Your task to perform on an android device: choose inbox layout in the gmail app Image 0: 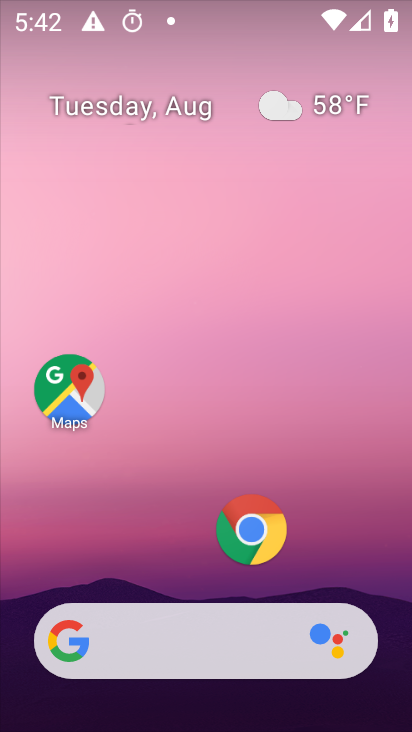
Step 0: drag from (188, 366) to (210, 168)
Your task to perform on an android device: choose inbox layout in the gmail app Image 1: 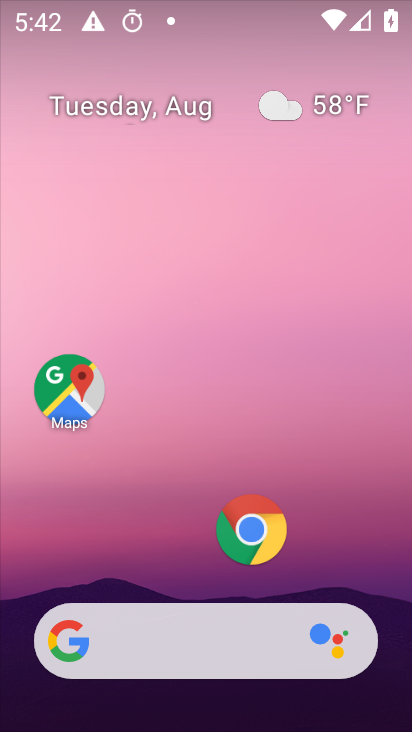
Step 1: drag from (188, 491) to (211, 189)
Your task to perform on an android device: choose inbox layout in the gmail app Image 2: 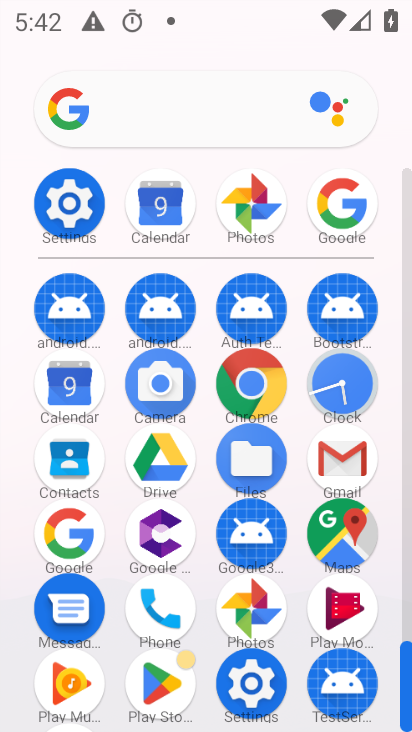
Step 2: click (346, 461)
Your task to perform on an android device: choose inbox layout in the gmail app Image 3: 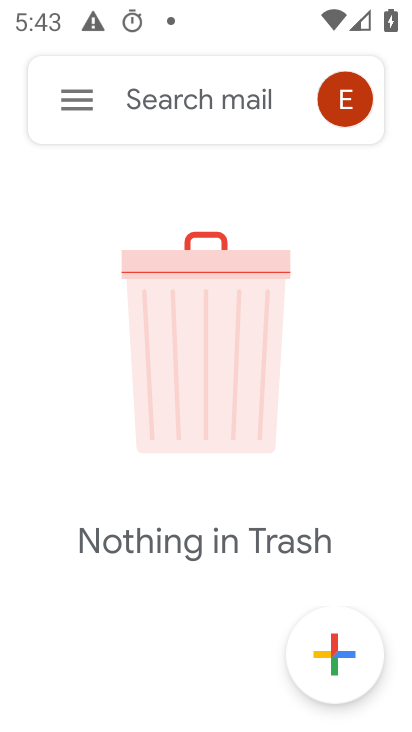
Step 3: click (82, 105)
Your task to perform on an android device: choose inbox layout in the gmail app Image 4: 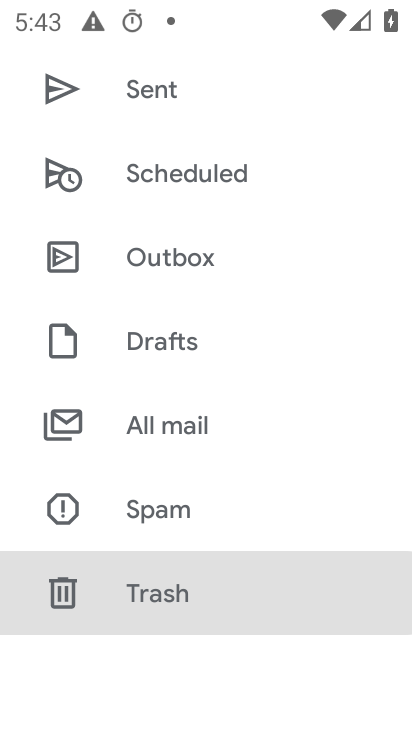
Step 4: drag from (238, 247) to (242, 505)
Your task to perform on an android device: choose inbox layout in the gmail app Image 5: 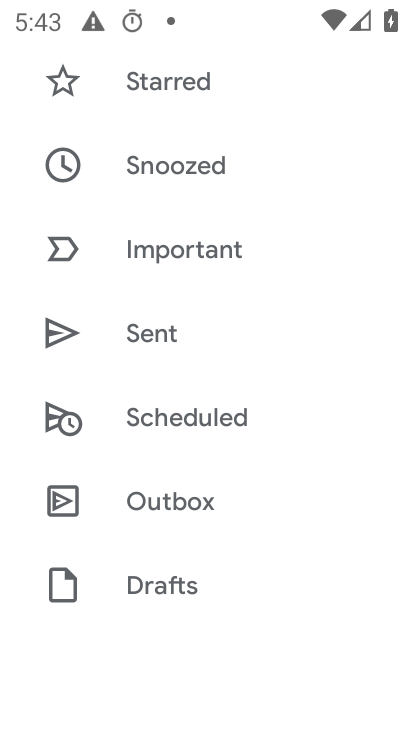
Step 5: drag from (228, 259) to (228, 499)
Your task to perform on an android device: choose inbox layout in the gmail app Image 6: 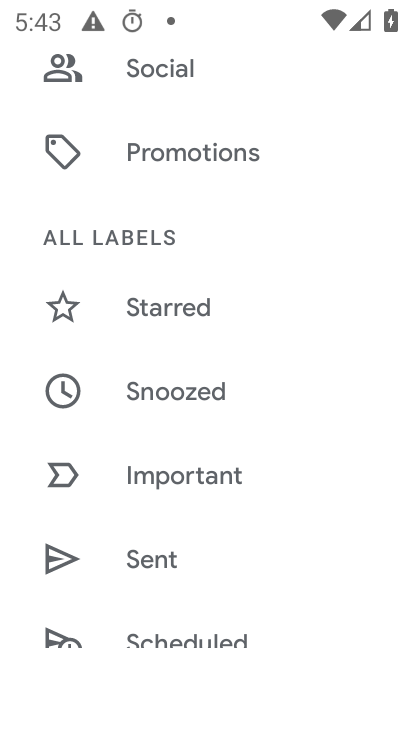
Step 6: drag from (234, 498) to (244, 161)
Your task to perform on an android device: choose inbox layout in the gmail app Image 7: 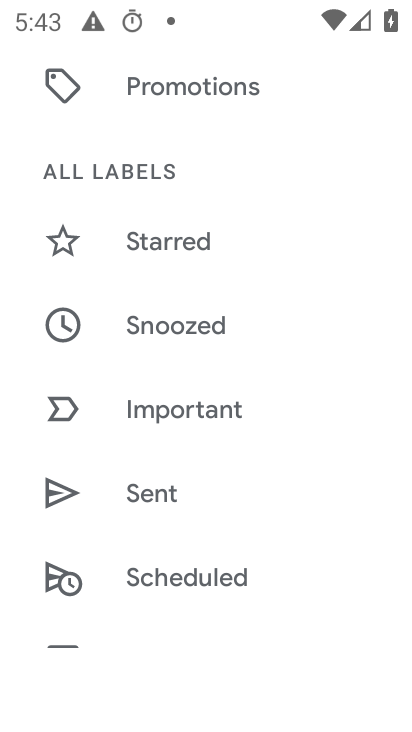
Step 7: drag from (210, 548) to (239, 236)
Your task to perform on an android device: choose inbox layout in the gmail app Image 8: 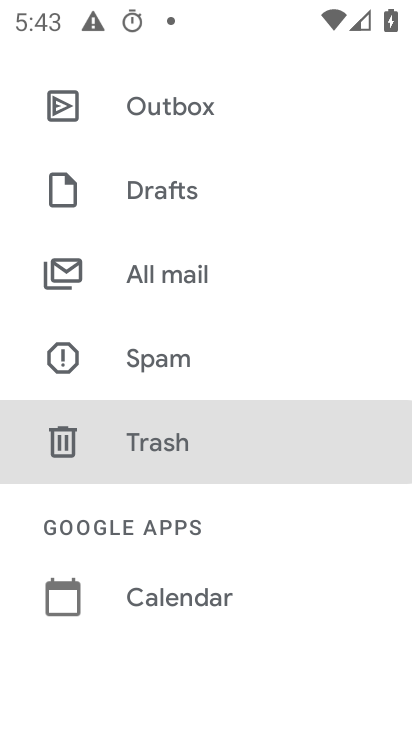
Step 8: drag from (231, 558) to (261, 269)
Your task to perform on an android device: choose inbox layout in the gmail app Image 9: 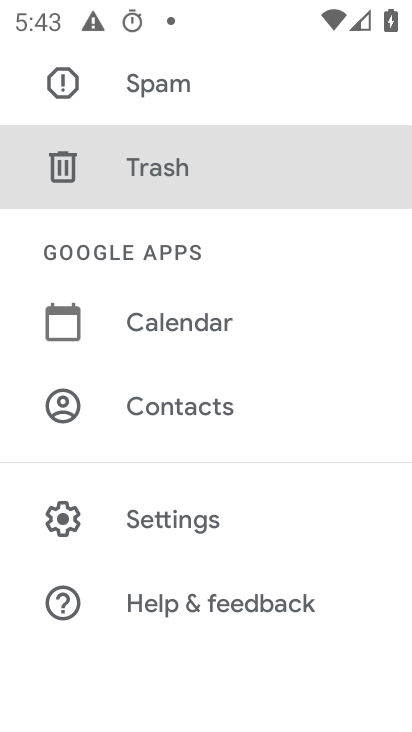
Step 9: click (184, 526)
Your task to perform on an android device: choose inbox layout in the gmail app Image 10: 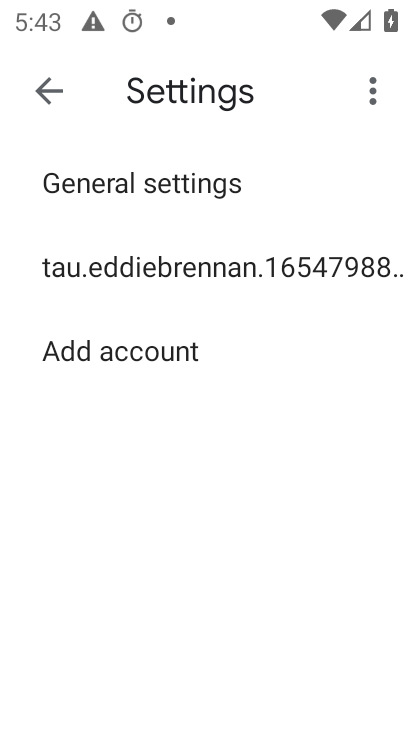
Step 10: click (232, 242)
Your task to perform on an android device: choose inbox layout in the gmail app Image 11: 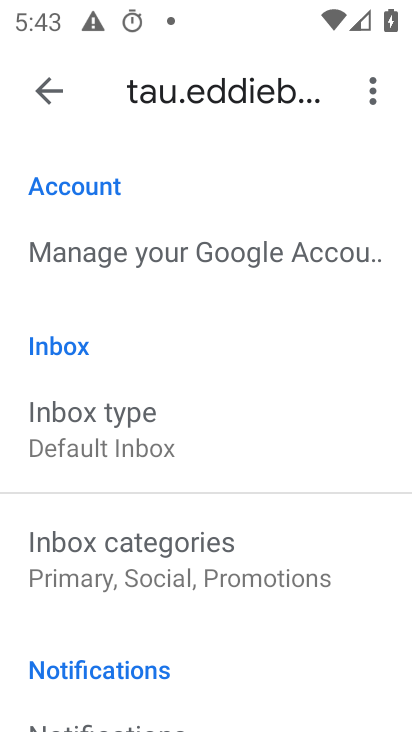
Step 11: click (152, 435)
Your task to perform on an android device: choose inbox layout in the gmail app Image 12: 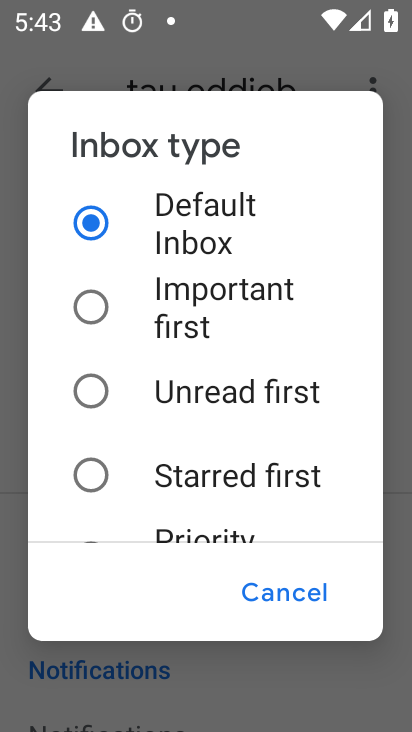
Step 12: drag from (189, 477) to (228, 247)
Your task to perform on an android device: choose inbox layout in the gmail app Image 13: 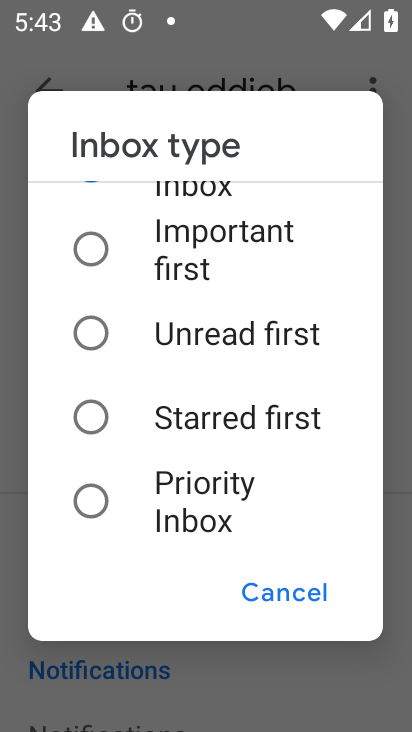
Step 13: click (179, 495)
Your task to perform on an android device: choose inbox layout in the gmail app Image 14: 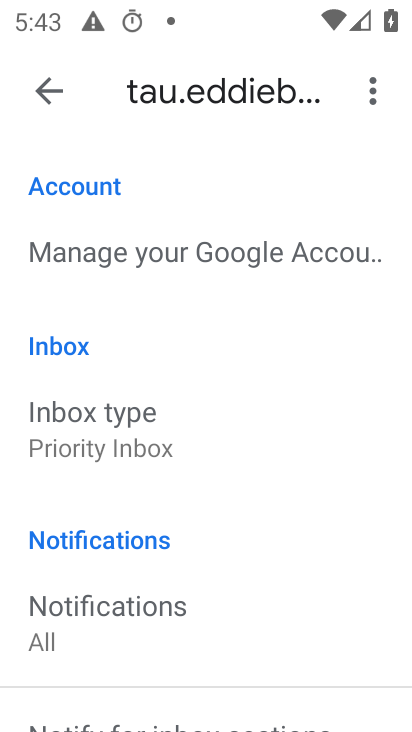
Step 14: task complete